Your task to perform on an android device: turn off sleep mode Image 0: 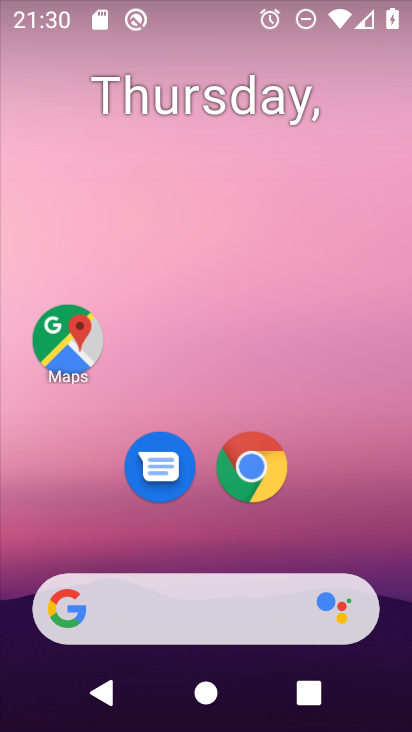
Step 0: drag from (310, 543) to (302, 155)
Your task to perform on an android device: turn off sleep mode Image 1: 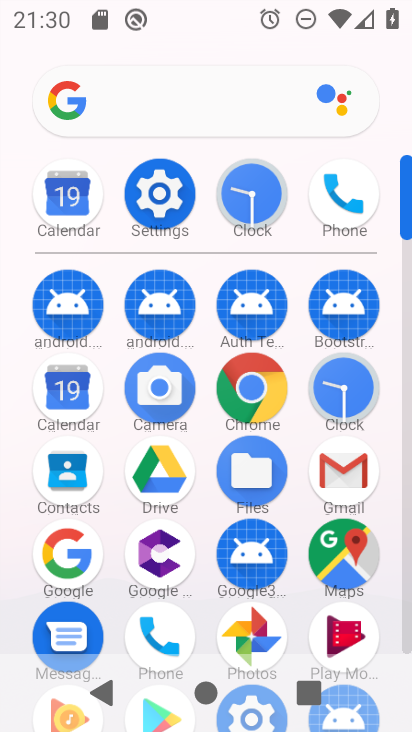
Step 1: click (154, 195)
Your task to perform on an android device: turn off sleep mode Image 2: 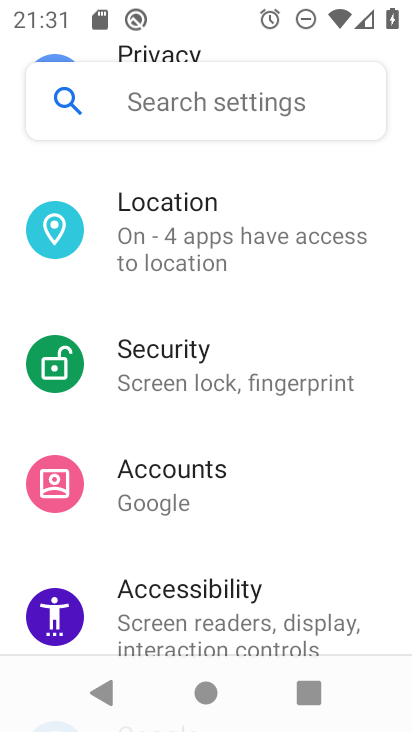
Step 2: task complete